Your task to perform on an android device: turn off javascript in the chrome app Image 0: 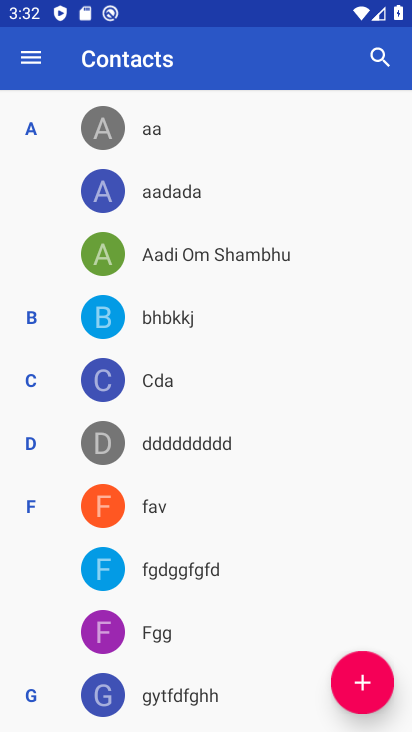
Step 0: press home button
Your task to perform on an android device: turn off javascript in the chrome app Image 1: 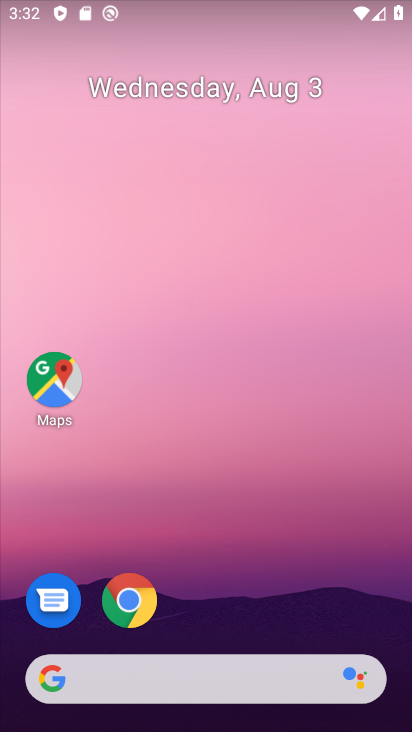
Step 1: click (146, 593)
Your task to perform on an android device: turn off javascript in the chrome app Image 2: 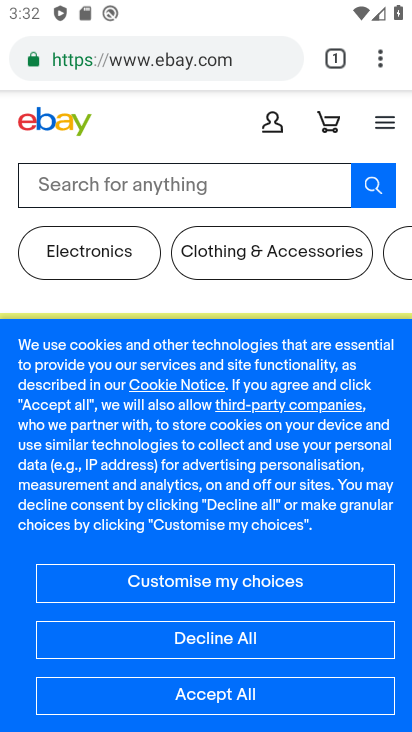
Step 2: click (382, 56)
Your task to perform on an android device: turn off javascript in the chrome app Image 3: 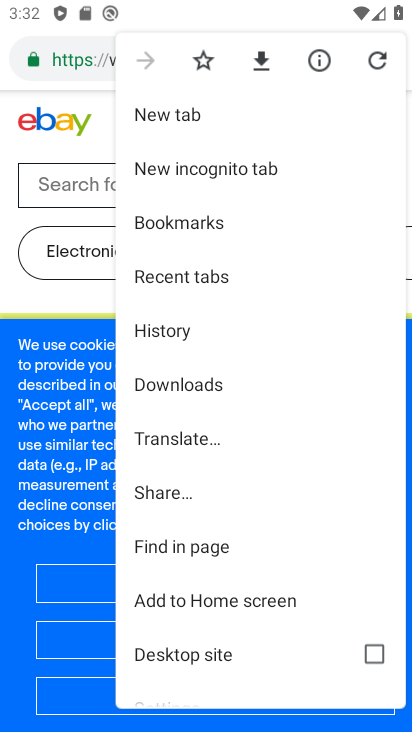
Step 3: drag from (278, 527) to (267, 137)
Your task to perform on an android device: turn off javascript in the chrome app Image 4: 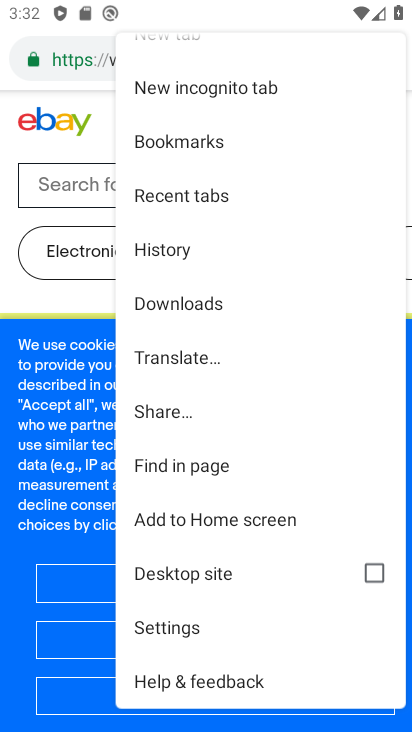
Step 4: click (179, 632)
Your task to perform on an android device: turn off javascript in the chrome app Image 5: 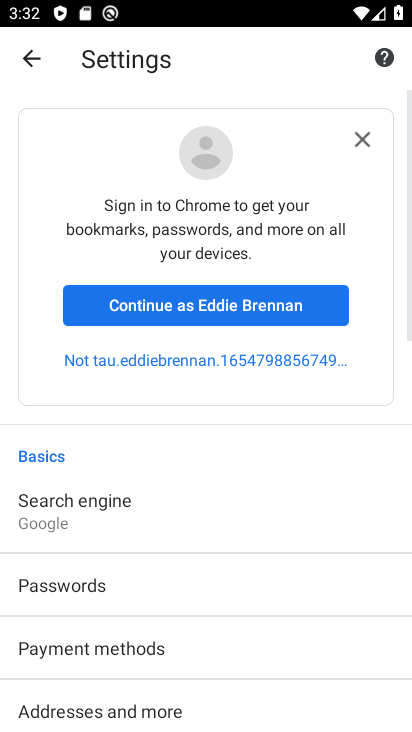
Step 5: drag from (229, 575) to (216, 325)
Your task to perform on an android device: turn off javascript in the chrome app Image 6: 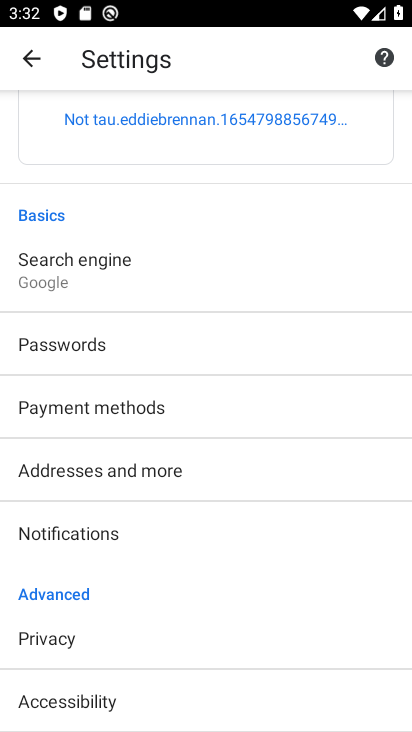
Step 6: drag from (228, 663) to (221, 396)
Your task to perform on an android device: turn off javascript in the chrome app Image 7: 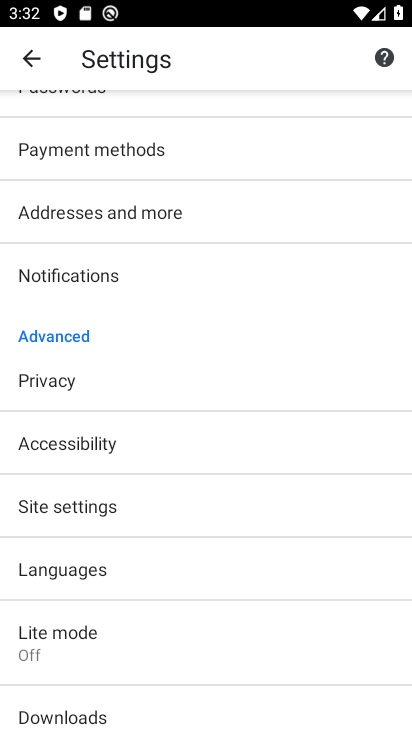
Step 7: click (94, 493)
Your task to perform on an android device: turn off javascript in the chrome app Image 8: 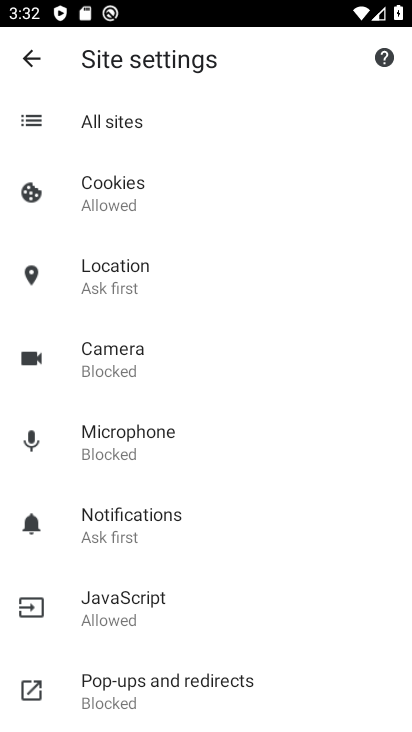
Step 8: click (137, 592)
Your task to perform on an android device: turn off javascript in the chrome app Image 9: 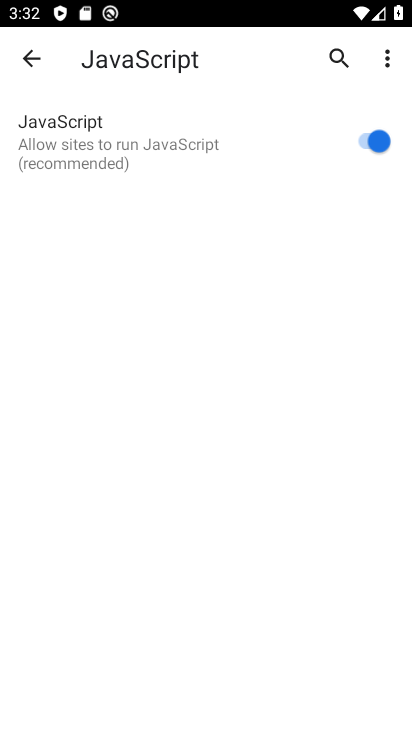
Step 9: click (378, 135)
Your task to perform on an android device: turn off javascript in the chrome app Image 10: 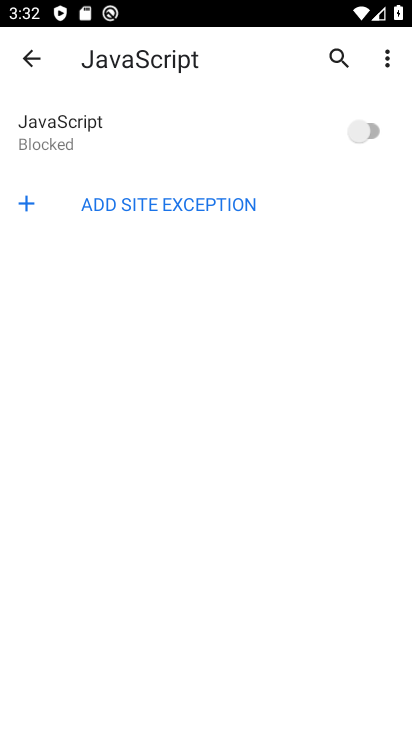
Step 10: task complete